Your task to perform on an android device: turn off location Image 0: 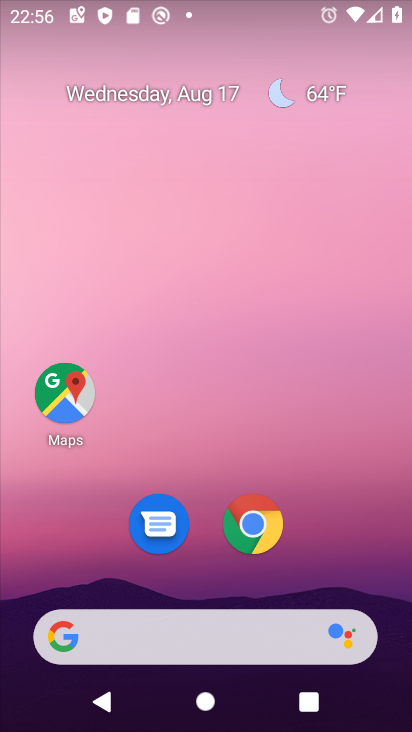
Step 0: drag from (326, 544) to (359, 0)
Your task to perform on an android device: turn off location Image 1: 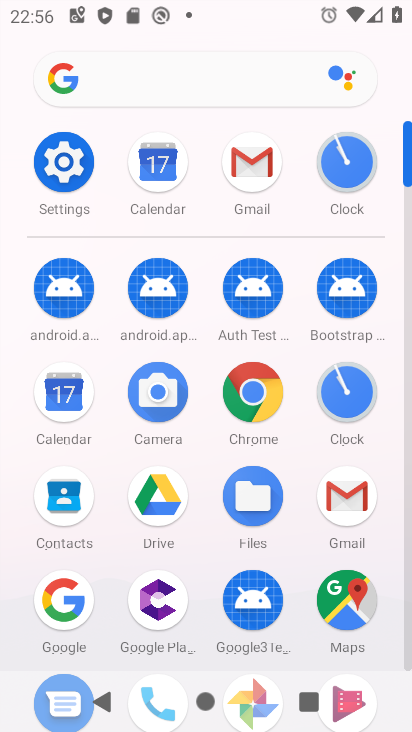
Step 1: click (64, 151)
Your task to perform on an android device: turn off location Image 2: 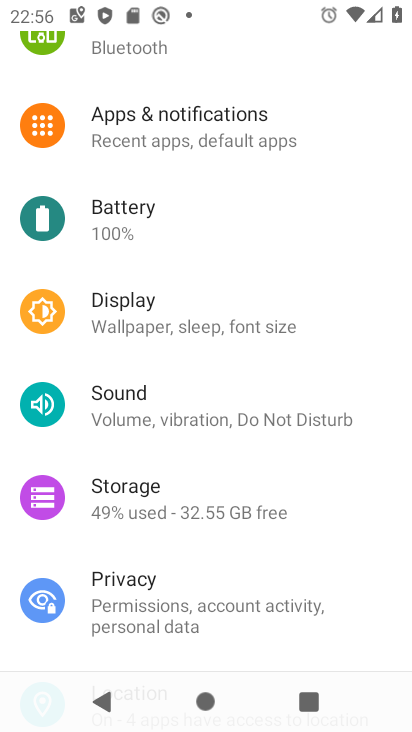
Step 2: drag from (195, 520) to (217, 125)
Your task to perform on an android device: turn off location Image 3: 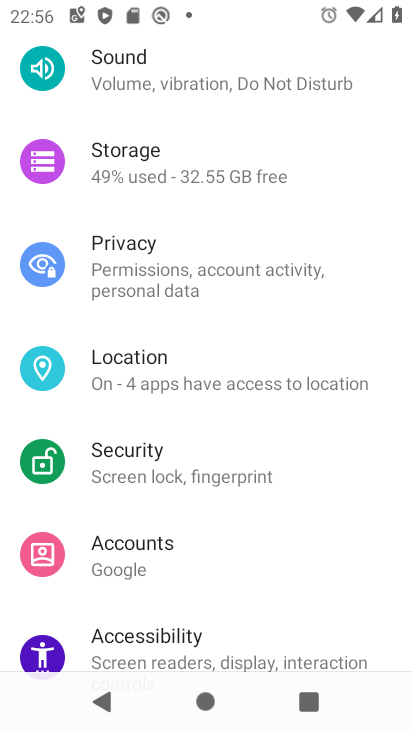
Step 3: drag from (232, 481) to (254, 80)
Your task to perform on an android device: turn off location Image 4: 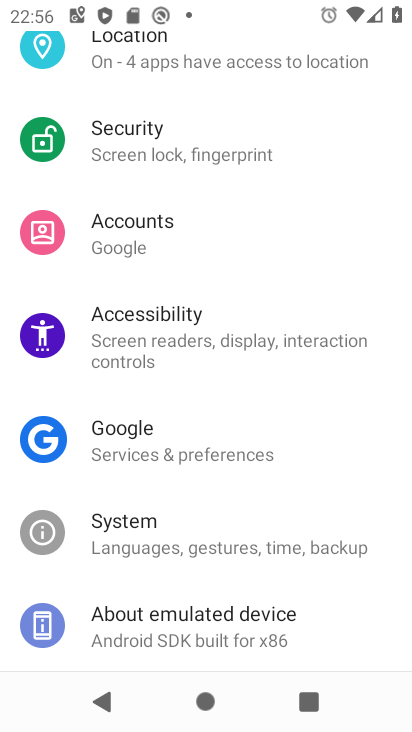
Step 4: drag from (243, 172) to (228, 490)
Your task to perform on an android device: turn off location Image 5: 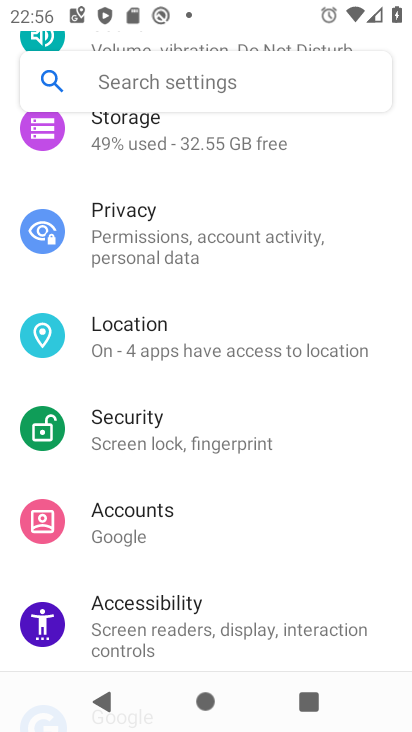
Step 5: click (228, 344)
Your task to perform on an android device: turn off location Image 6: 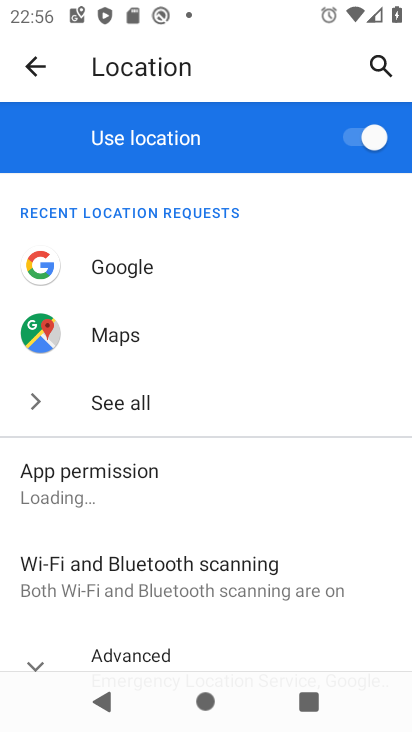
Step 6: click (367, 130)
Your task to perform on an android device: turn off location Image 7: 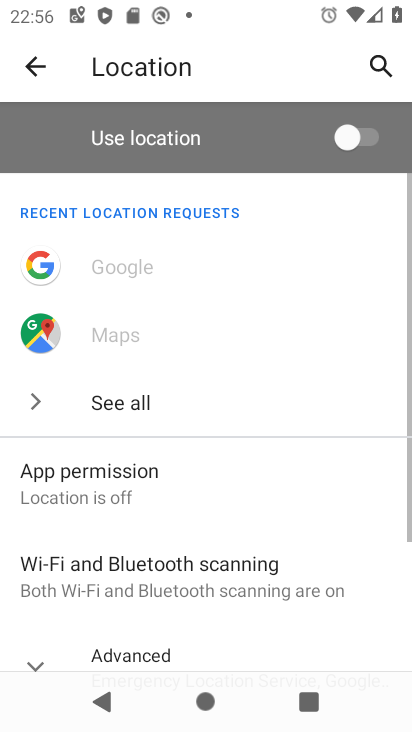
Step 7: task complete